Your task to perform on an android device: open the mobile data screen to see how much data has been used Image 0: 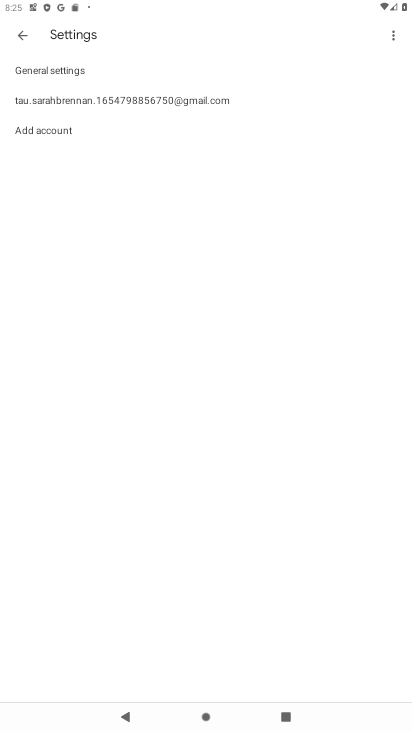
Step 0: press home button
Your task to perform on an android device: open the mobile data screen to see how much data has been used Image 1: 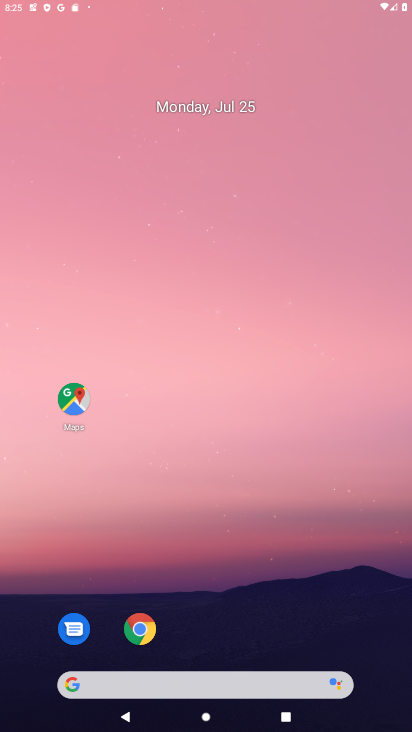
Step 1: press home button
Your task to perform on an android device: open the mobile data screen to see how much data has been used Image 2: 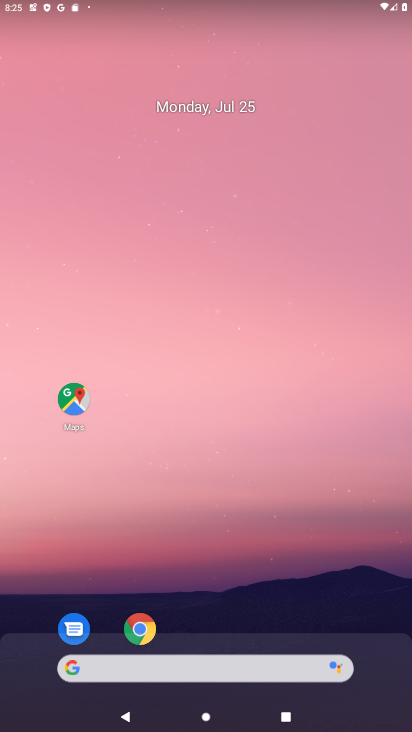
Step 2: drag from (244, 613) to (265, 0)
Your task to perform on an android device: open the mobile data screen to see how much data has been used Image 3: 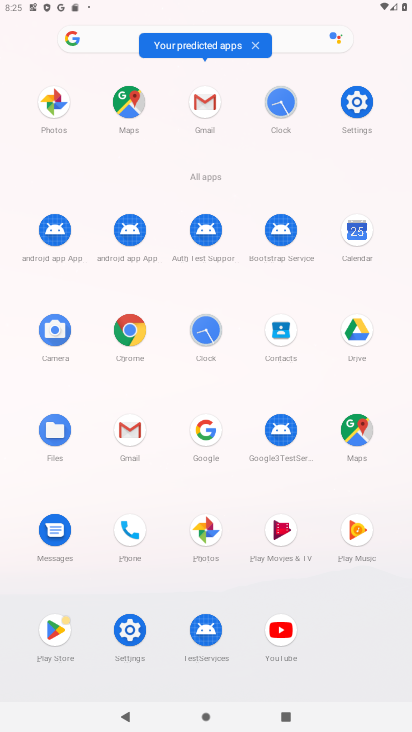
Step 3: click (356, 113)
Your task to perform on an android device: open the mobile data screen to see how much data has been used Image 4: 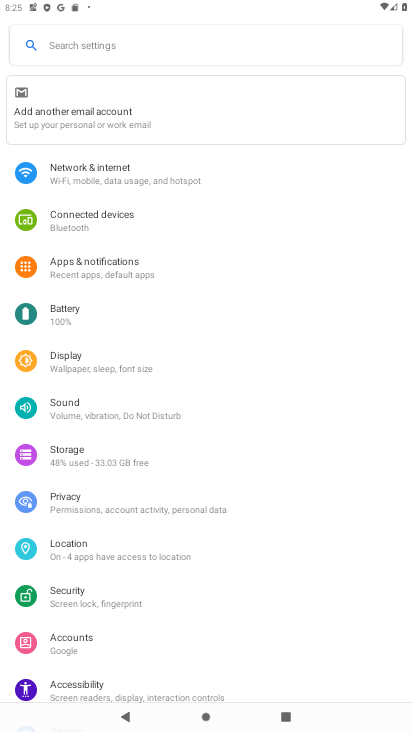
Step 4: click (78, 168)
Your task to perform on an android device: open the mobile data screen to see how much data has been used Image 5: 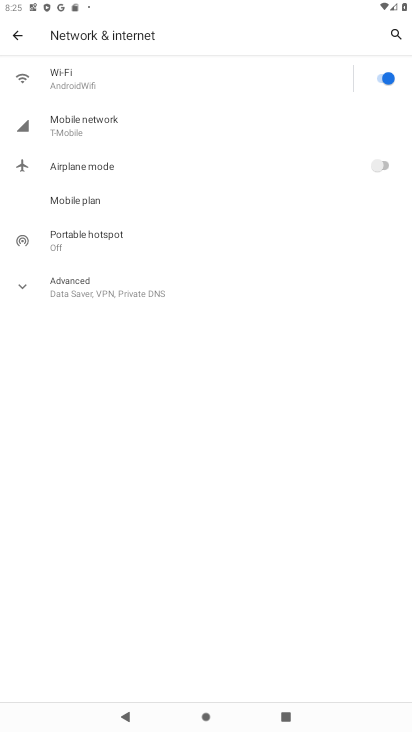
Step 5: click (72, 132)
Your task to perform on an android device: open the mobile data screen to see how much data has been used Image 6: 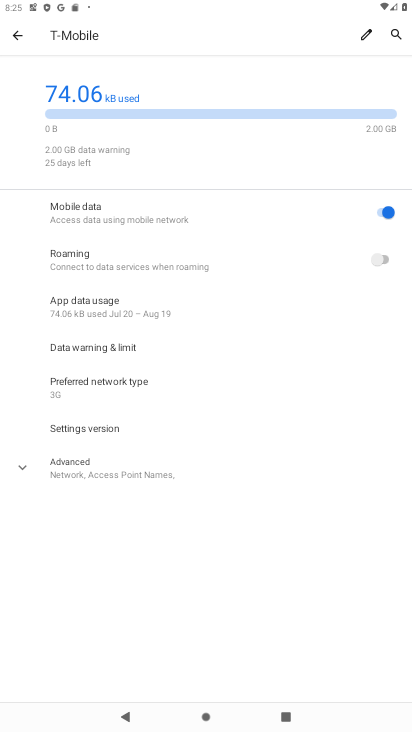
Step 6: click (90, 315)
Your task to perform on an android device: open the mobile data screen to see how much data has been used Image 7: 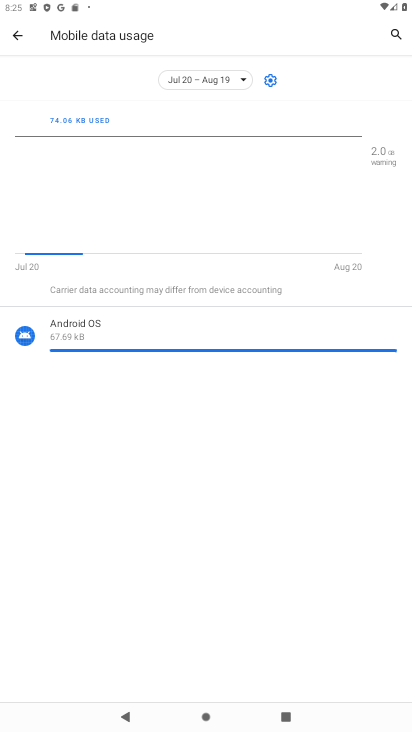
Step 7: task complete